Your task to perform on an android device: toggle priority inbox in the gmail app Image 0: 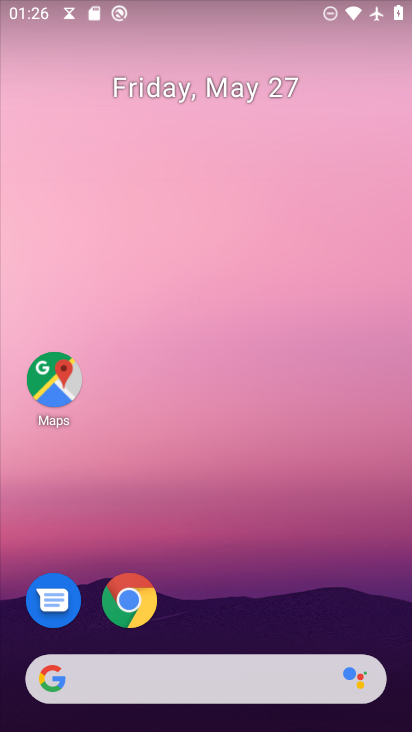
Step 0: drag from (163, 615) to (193, 279)
Your task to perform on an android device: toggle priority inbox in the gmail app Image 1: 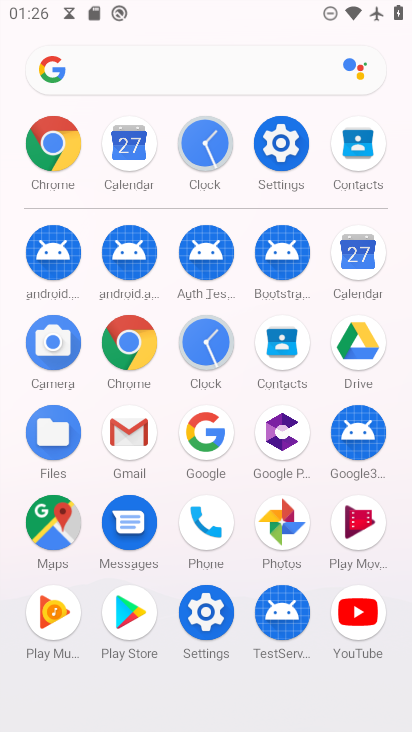
Step 1: click (119, 431)
Your task to perform on an android device: toggle priority inbox in the gmail app Image 2: 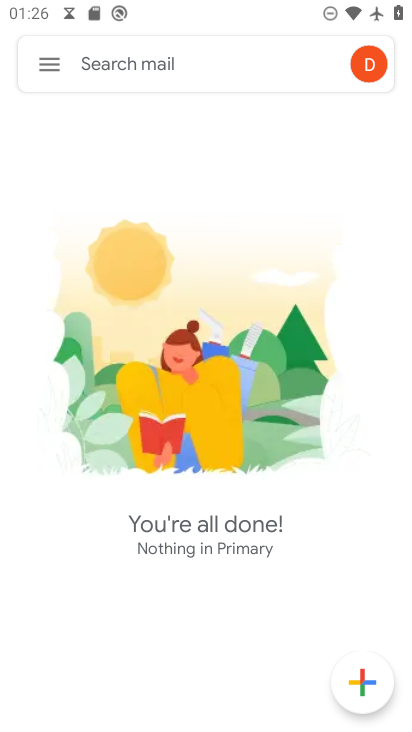
Step 2: click (39, 53)
Your task to perform on an android device: toggle priority inbox in the gmail app Image 3: 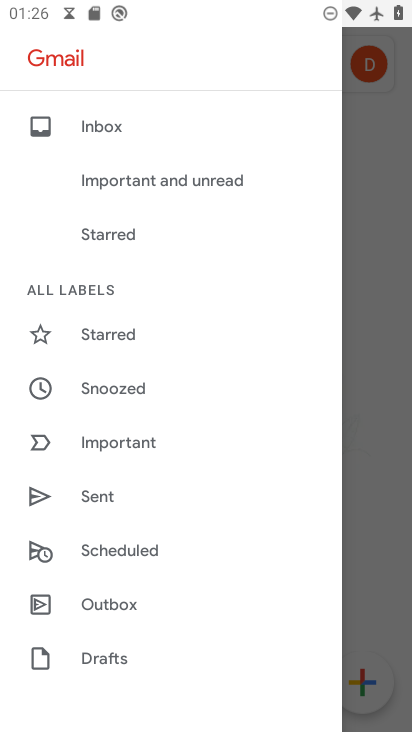
Step 3: drag from (129, 600) to (166, 164)
Your task to perform on an android device: toggle priority inbox in the gmail app Image 4: 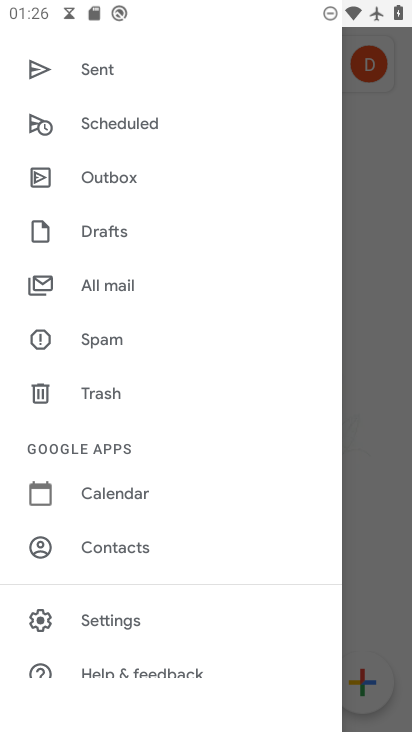
Step 4: drag from (103, 610) to (95, 524)
Your task to perform on an android device: toggle priority inbox in the gmail app Image 5: 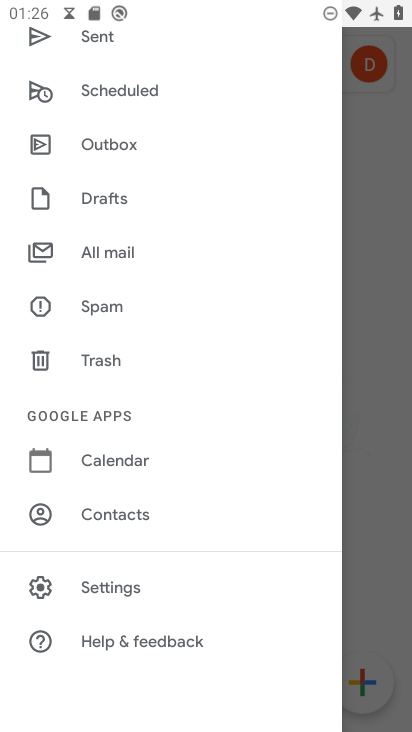
Step 5: click (124, 583)
Your task to perform on an android device: toggle priority inbox in the gmail app Image 6: 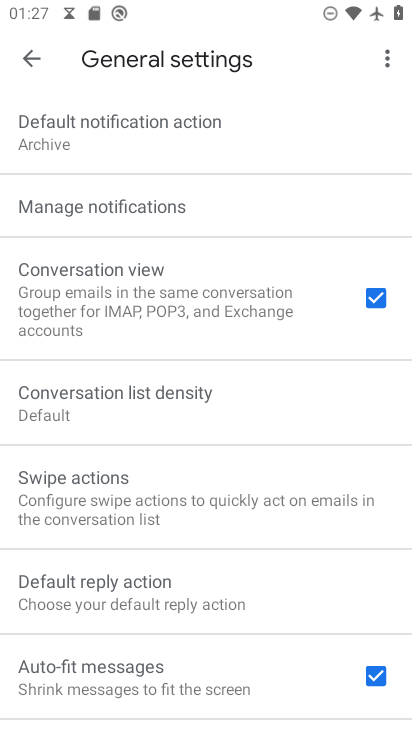
Step 6: drag from (239, 579) to (238, 141)
Your task to perform on an android device: toggle priority inbox in the gmail app Image 7: 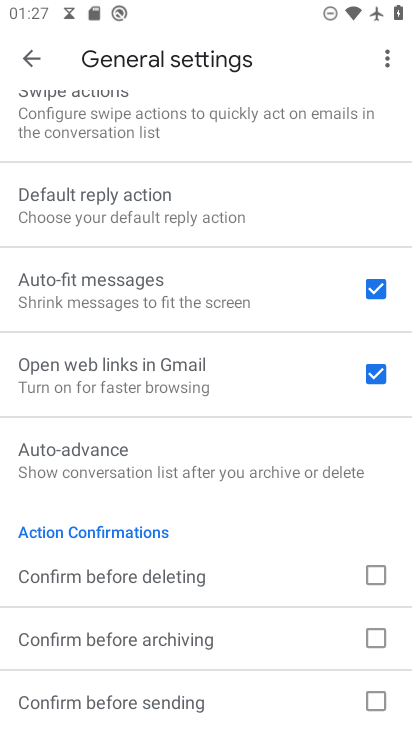
Step 7: drag from (167, 572) to (158, 136)
Your task to perform on an android device: toggle priority inbox in the gmail app Image 8: 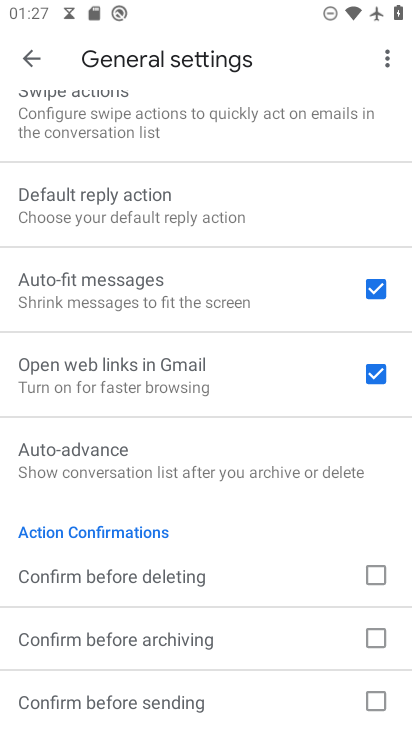
Step 8: drag from (228, 124) to (195, 612)
Your task to perform on an android device: toggle priority inbox in the gmail app Image 9: 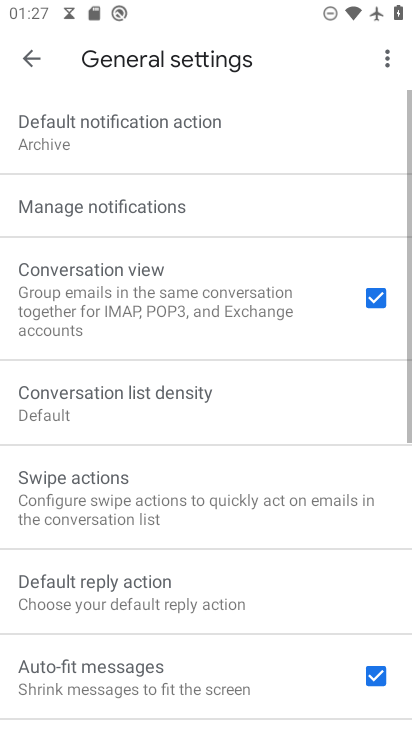
Step 9: drag from (217, 210) to (249, 696)
Your task to perform on an android device: toggle priority inbox in the gmail app Image 10: 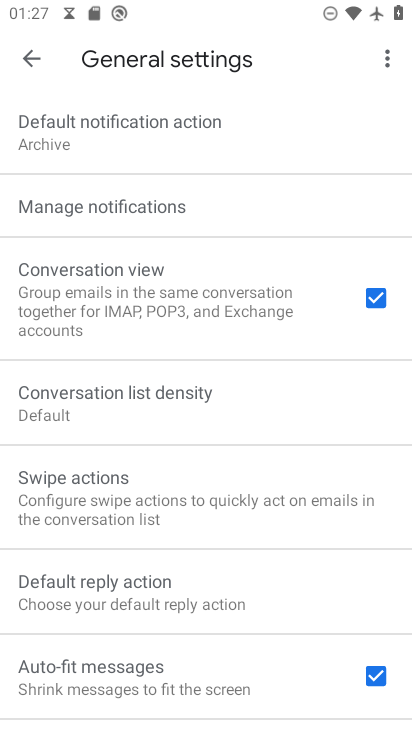
Step 10: click (388, 56)
Your task to perform on an android device: toggle priority inbox in the gmail app Image 11: 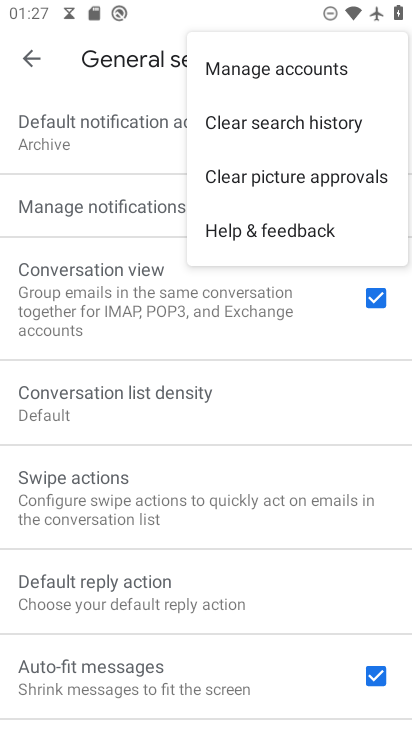
Step 11: task complete